Your task to perform on an android device: Go to CNN.com Image 0: 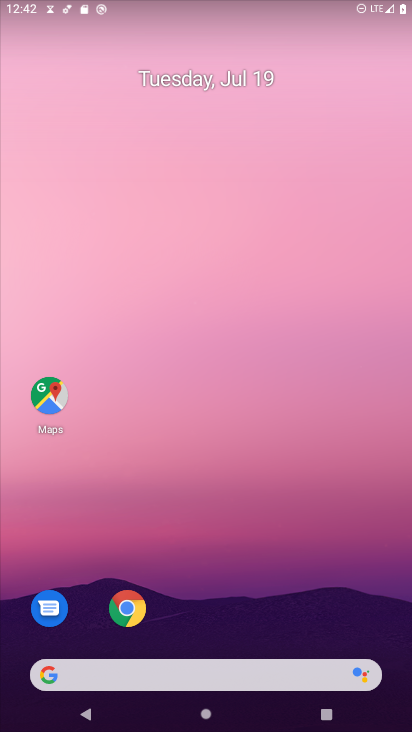
Step 0: drag from (252, 630) to (365, 463)
Your task to perform on an android device: Go to CNN.com Image 1: 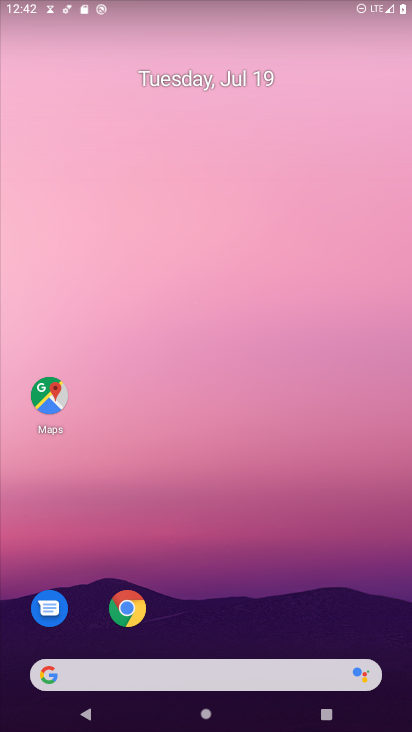
Step 1: click (118, 363)
Your task to perform on an android device: Go to CNN.com Image 2: 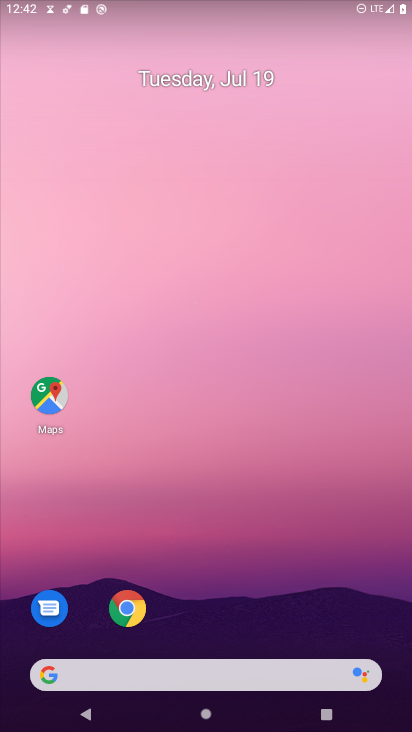
Step 2: drag from (152, 670) to (161, 69)
Your task to perform on an android device: Go to CNN.com Image 3: 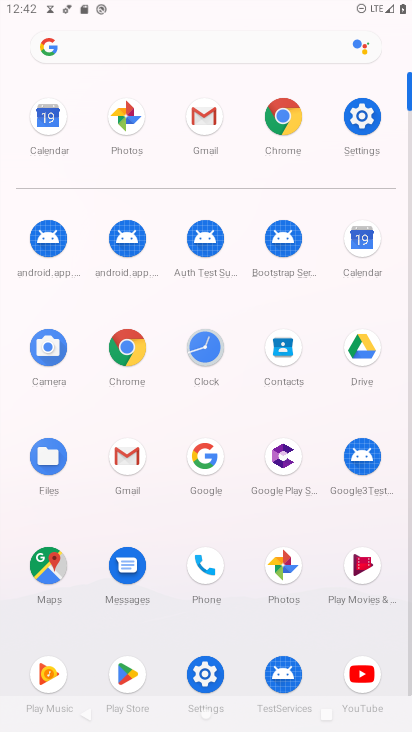
Step 3: click (137, 349)
Your task to perform on an android device: Go to CNN.com Image 4: 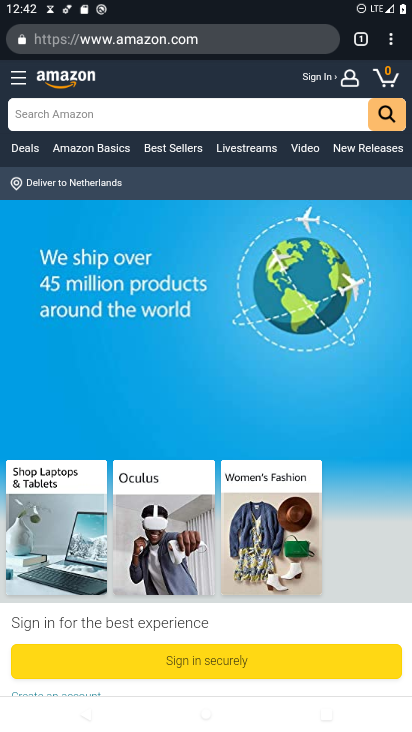
Step 4: click (266, 43)
Your task to perform on an android device: Go to CNN.com Image 5: 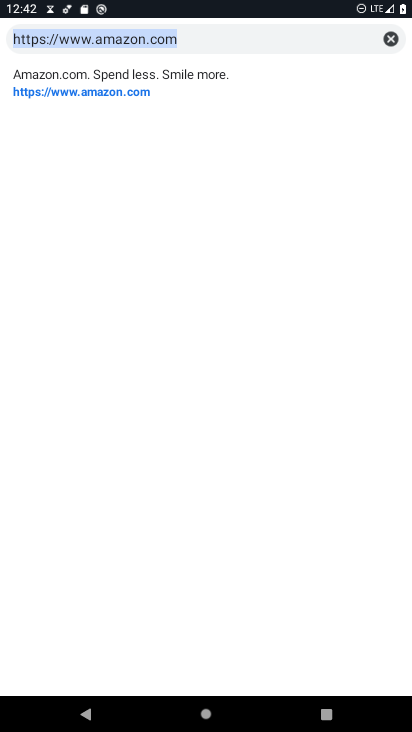
Step 5: type "cnn.com"
Your task to perform on an android device: Go to CNN.com Image 6: 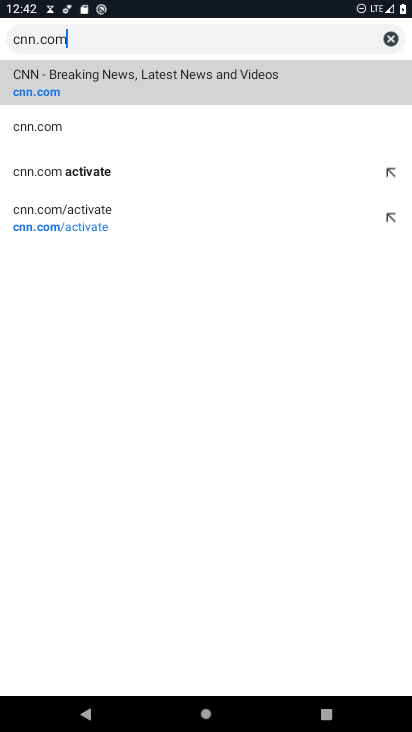
Step 6: click (70, 93)
Your task to perform on an android device: Go to CNN.com Image 7: 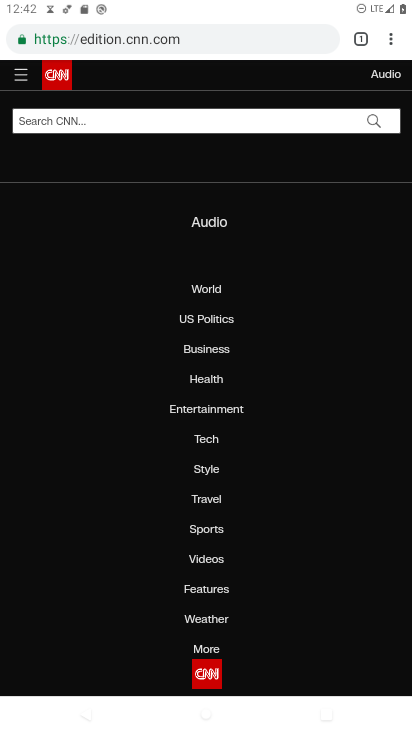
Step 7: task complete